Your task to perform on an android device: change the clock display to show seconds Image 0: 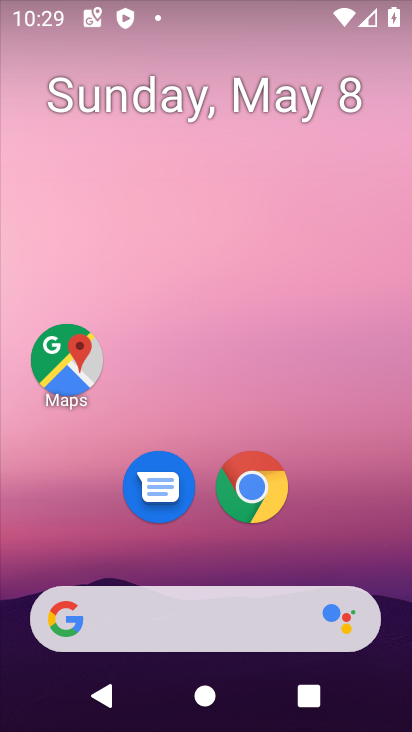
Step 0: drag from (200, 471) to (270, 11)
Your task to perform on an android device: change the clock display to show seconds Image 1: 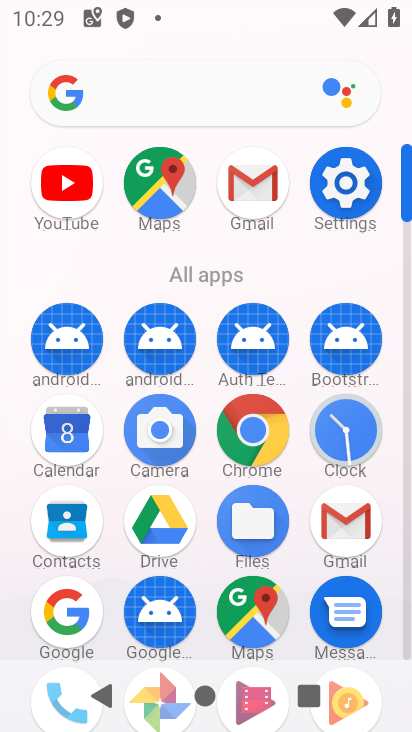
Step 1: click (358, 438)
Your task to perform on an android device: change the clock display to show seconds Image 2: 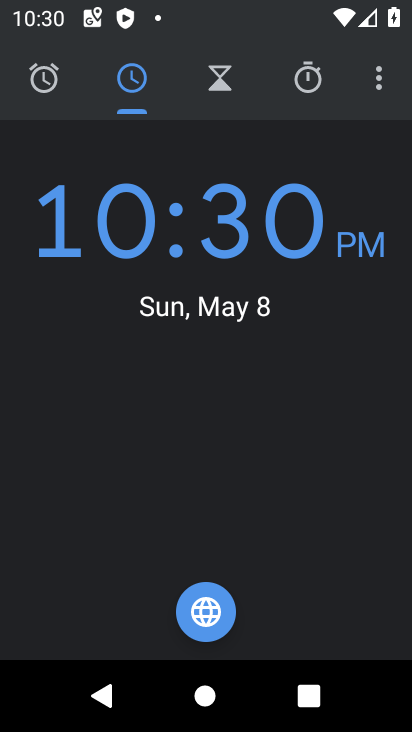
Step 2: click (380, 77)
Your task to perform on an android device: change the clock display to show seconds Image 3: 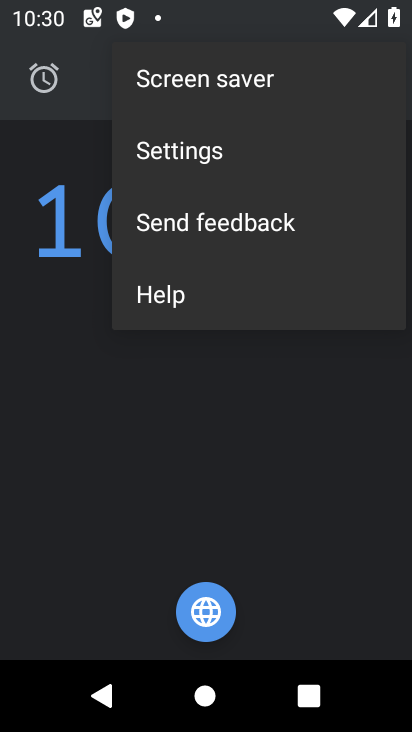
Step 3: click (181, 154)
Your task to perform on an android device: change the clock display to show seconds Image 4: 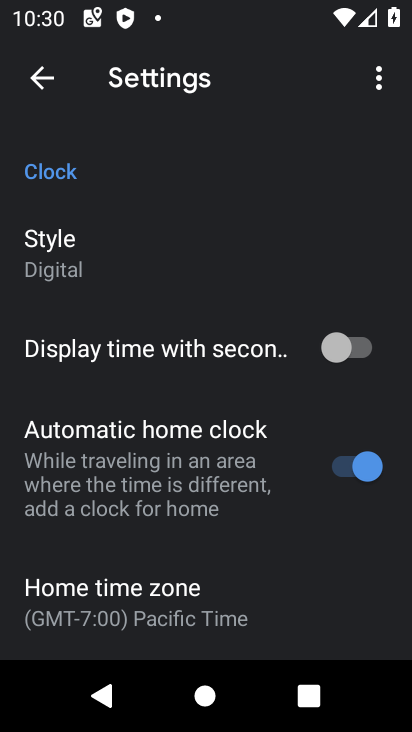
Step 4: click (339, 353)
Your task to perform on an android device: change the clock display to show seconds Image 5: 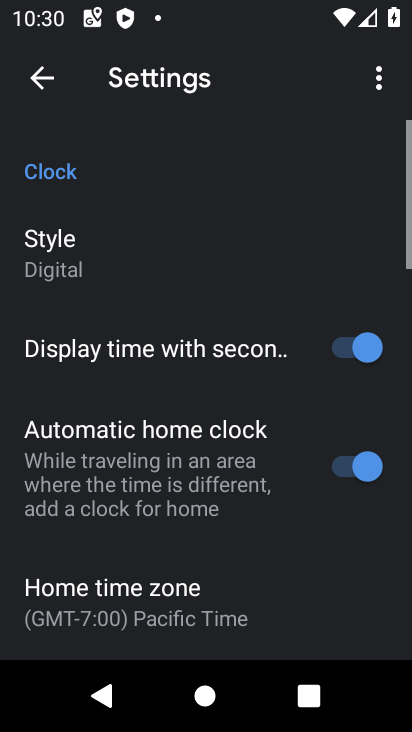
Step 5: task complete